Your task to perform on an android device: What's the news about the US stock market? Image 0: 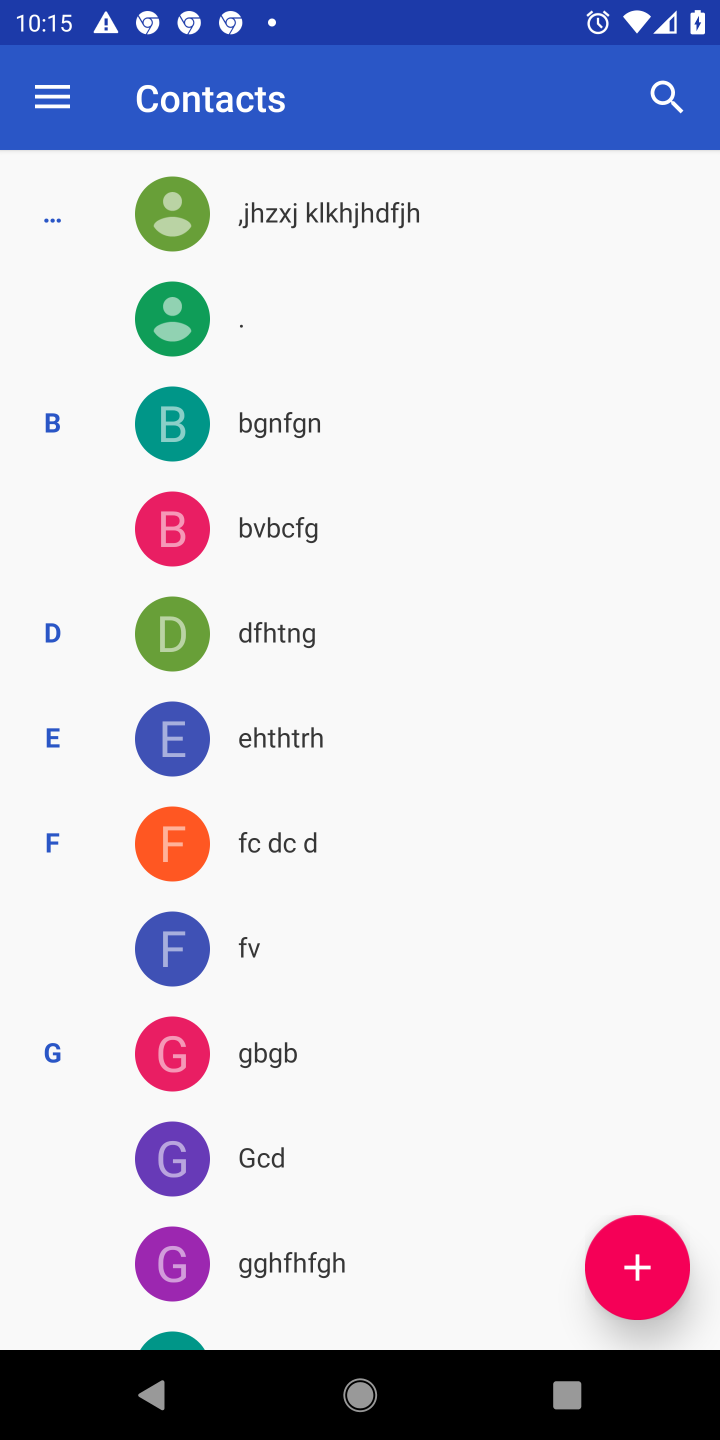
Step 0: press home button
Your task to perform on an android device: What's the news about the US stock market? Image 1: 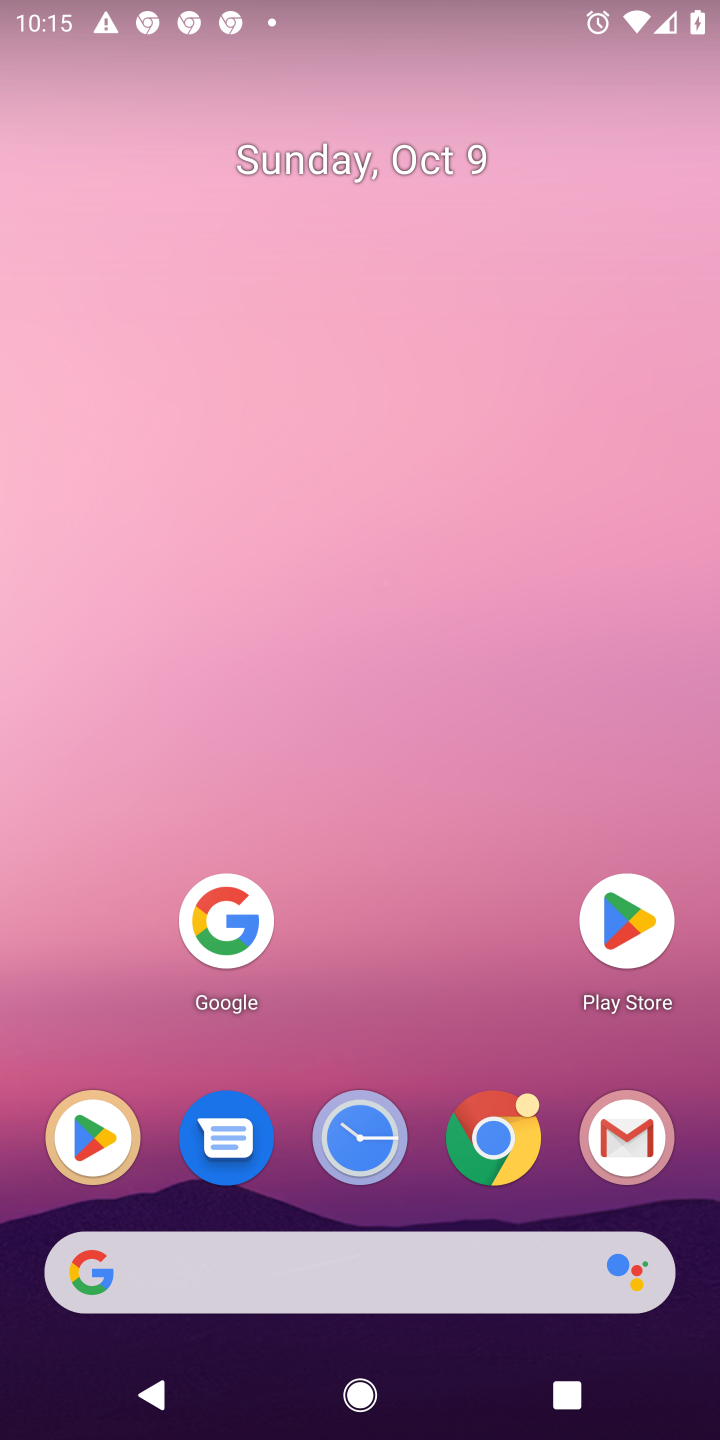
Step 1: click (196, 911)
Your task to perform on an android device: What's the news about the US stock market? Image 2: 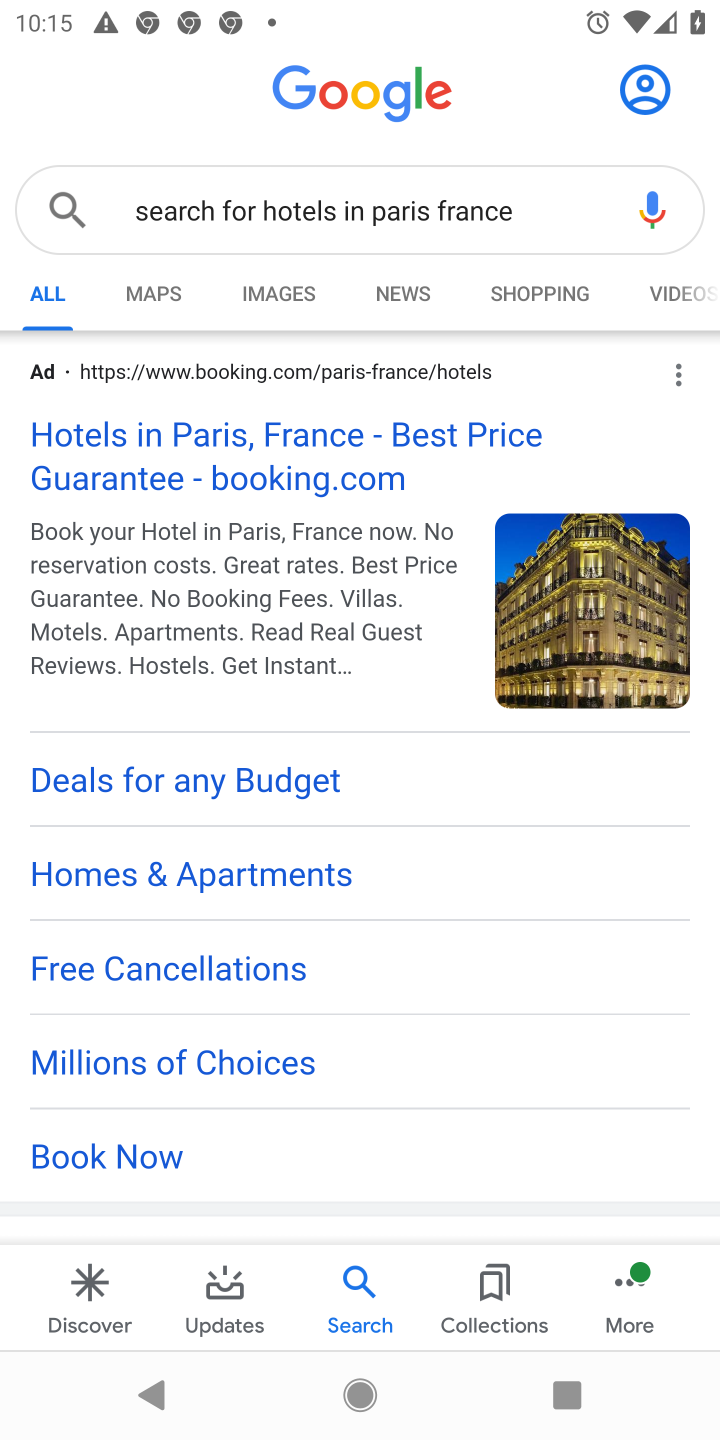
Step 2: click (238, 196)
Your task to perform on an android device: What's the news about the US stock market? Image 3: 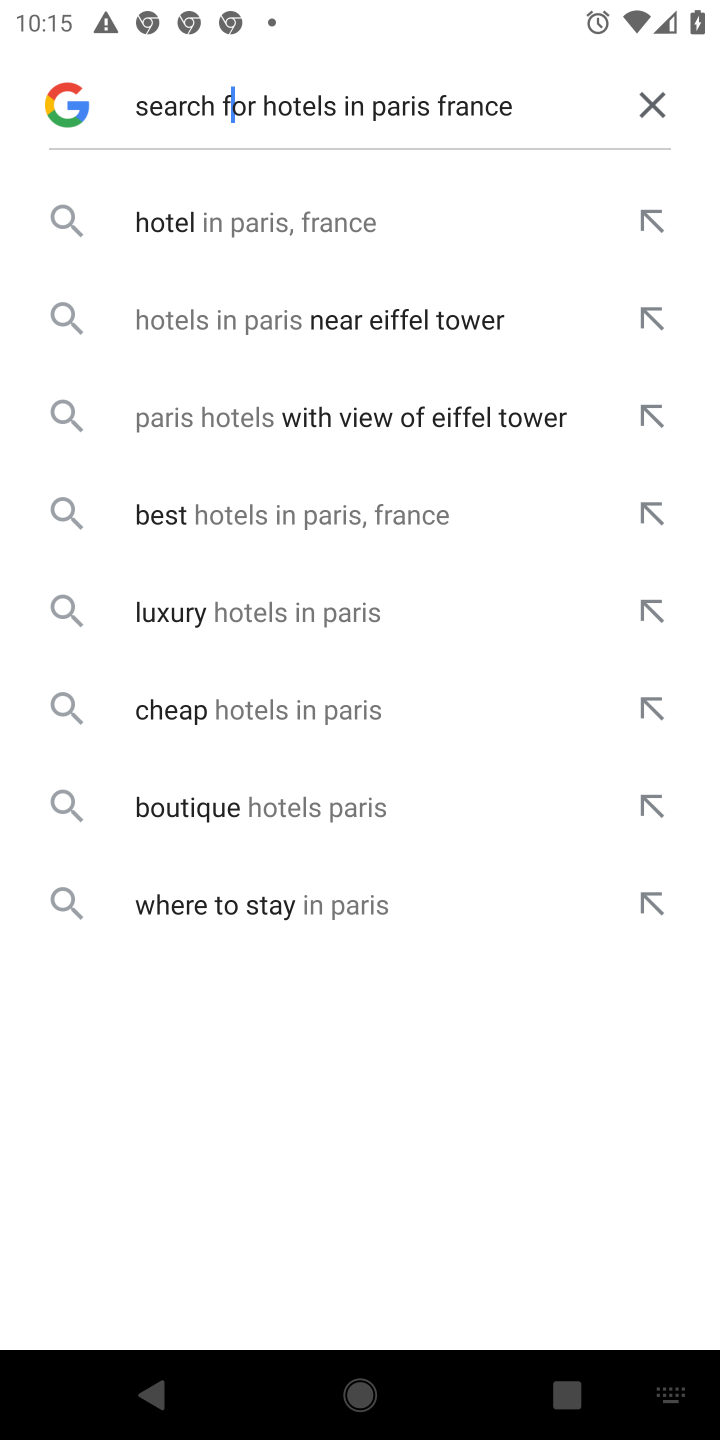
Step 3: click (650, 86)
Your task to perform on an android device: What's the news about the US stock market? Image 4: 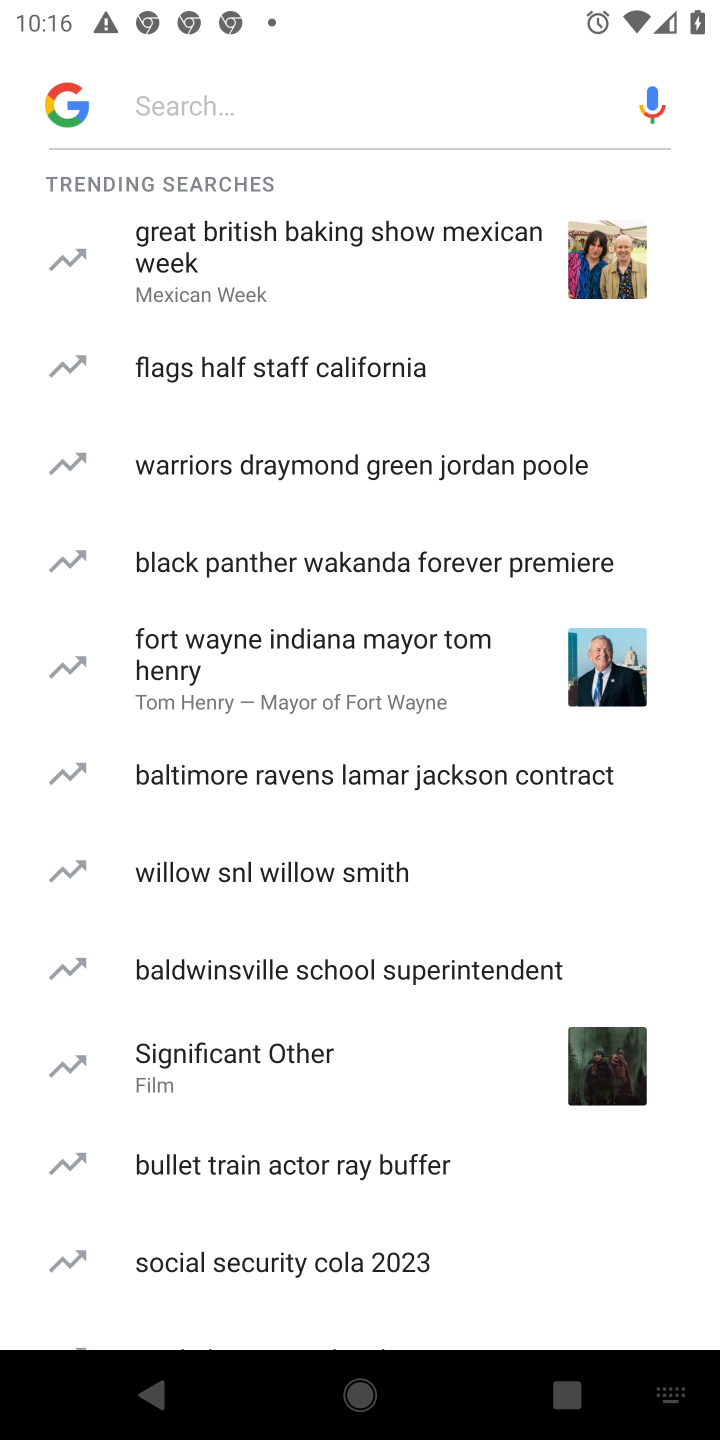
Step 4: click (322, 84)
Your task to perform on an android device: What's the news about the US stock market? Image 5: 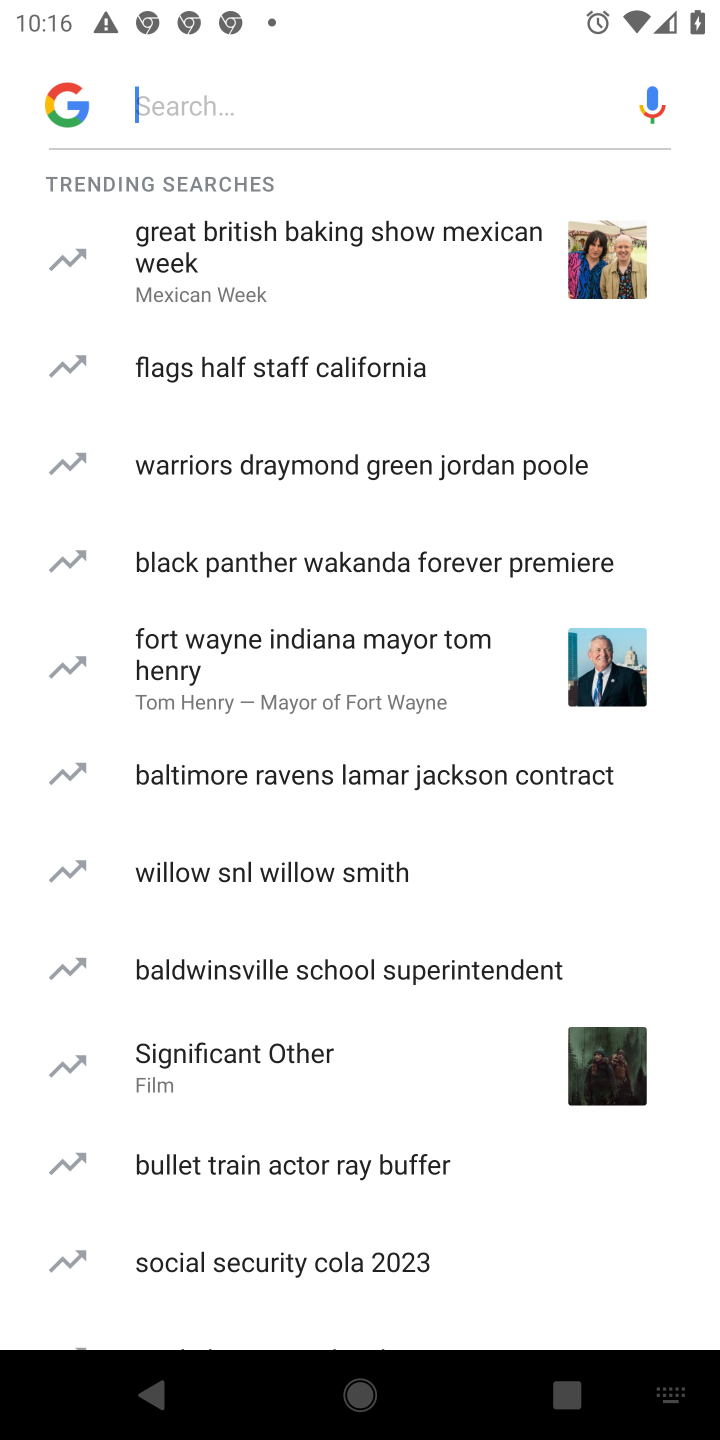
Step 5: type "What's the news about the US stock market? "
Your task to perform on an android device: What's the news about the US stock market? Image 6: 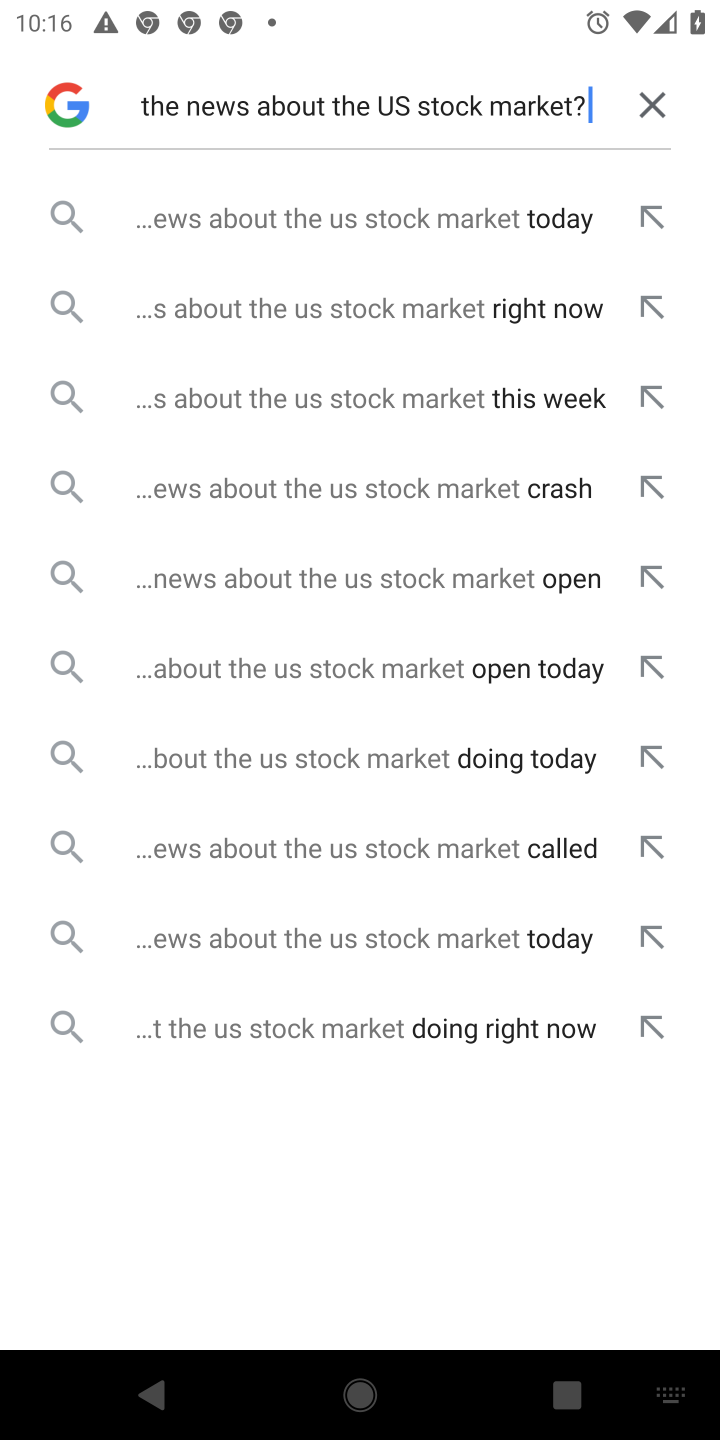
Step 6: click (269, 202)
Your task to perform on an android device: What's the news about the US stock market? Image 7: 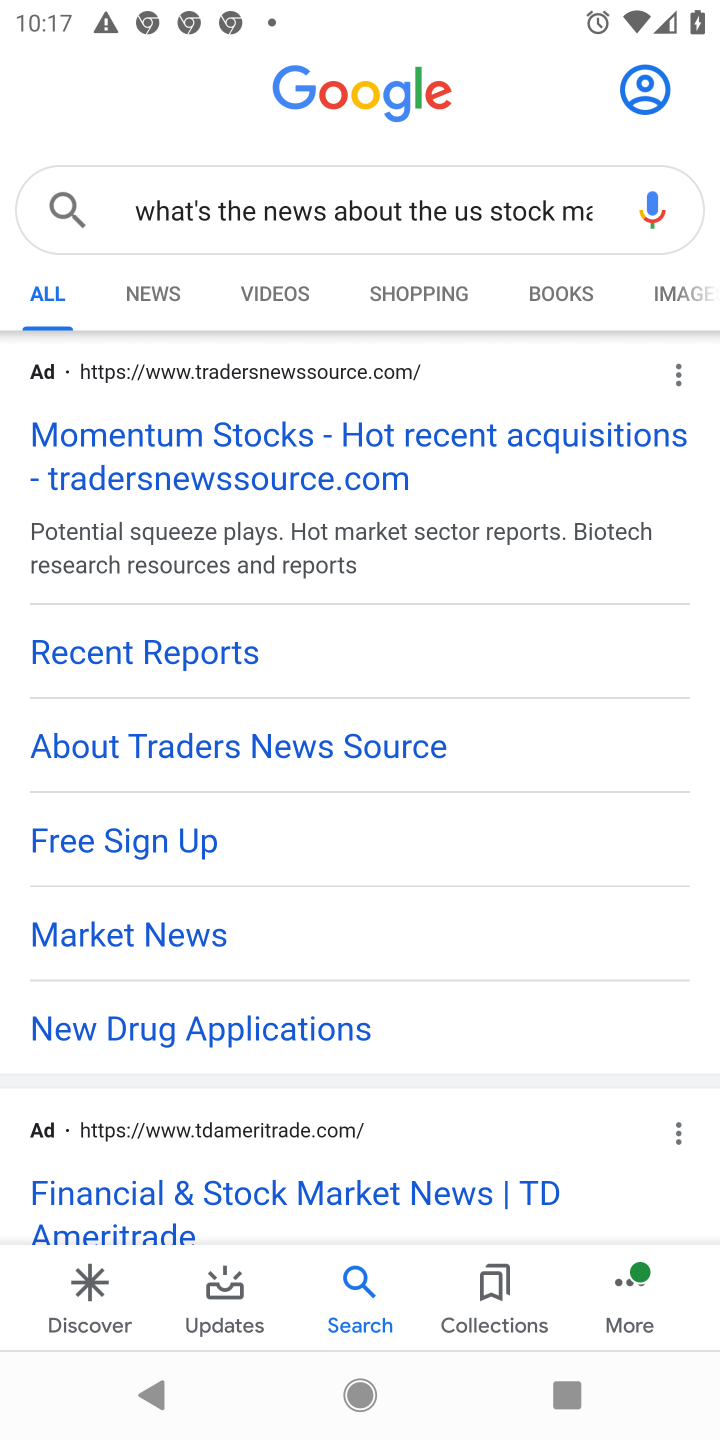
Step 7: click (280, 742)
Your task to perform on an android device: What's the news about the US stock market? Image 8: 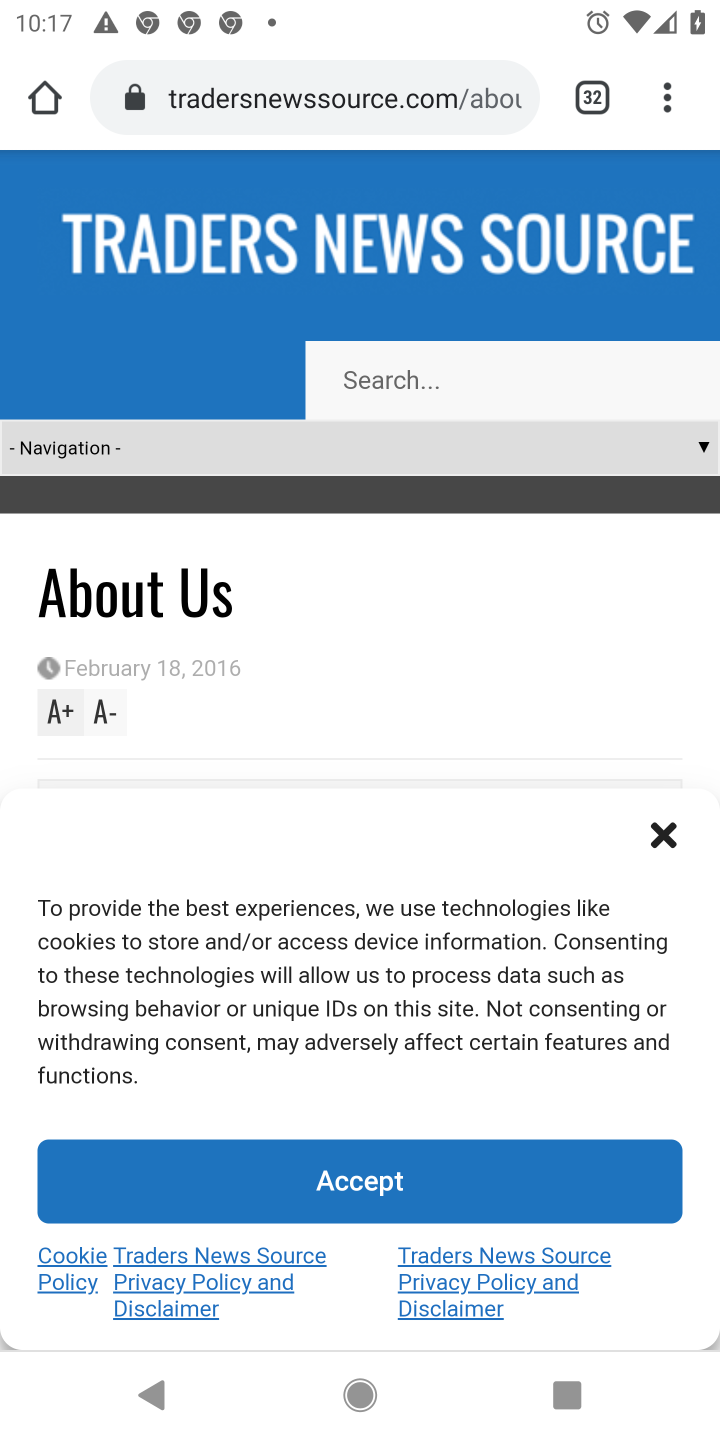
Step 8: task complete